Your task to perform on an android device: Go to wifi settings Image 0: 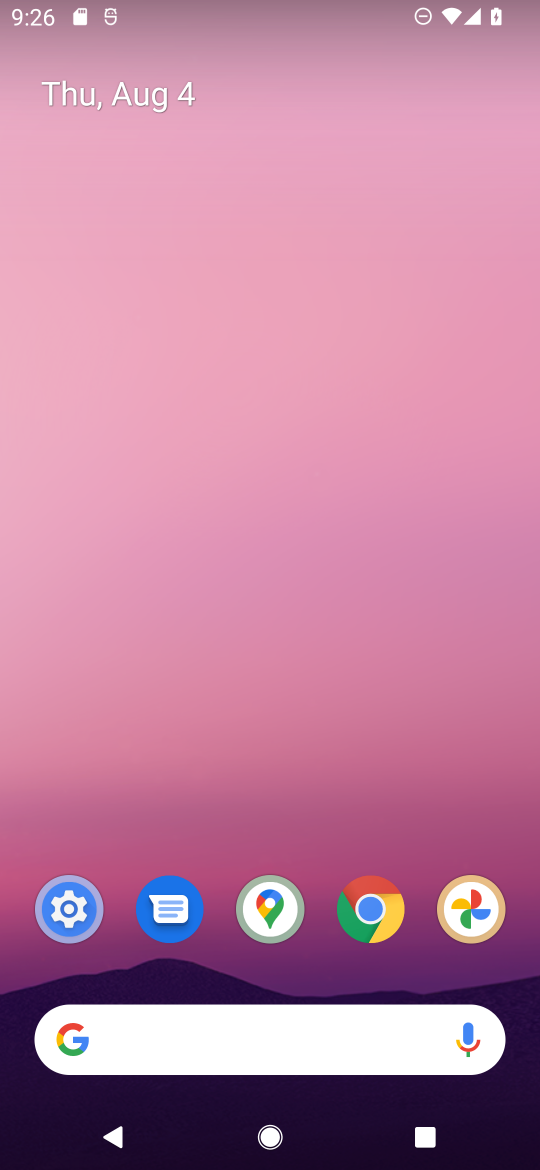
Step 0: drag from (344, 805) to (425, 222)
Your task to perform on an android device: Go to wifi settings Image 1: 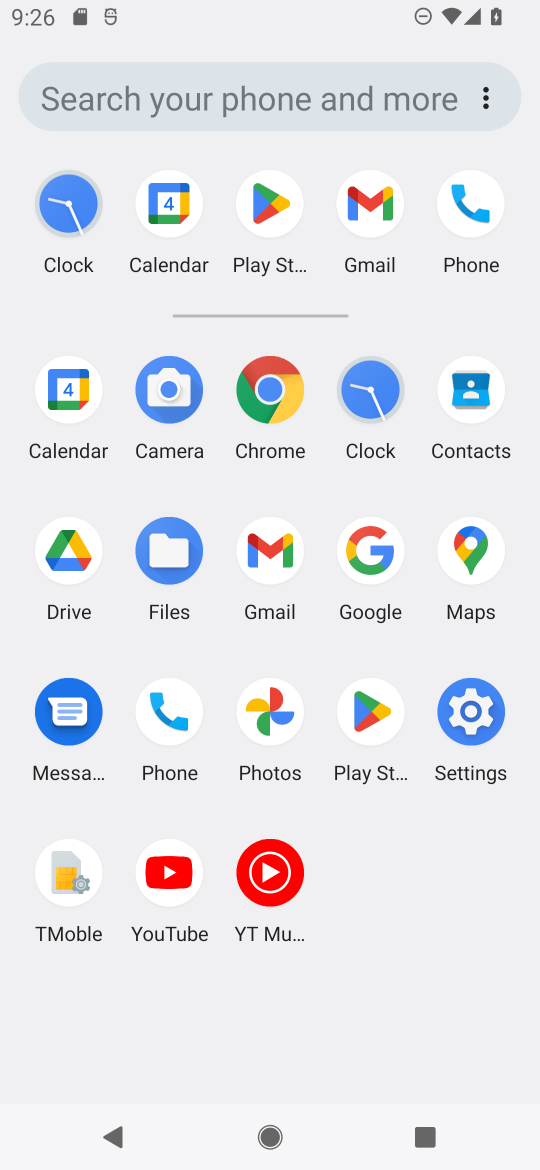
Step 1: click (487, 696)
Your task to perform on an android device: Go to wifi settings Image 2: 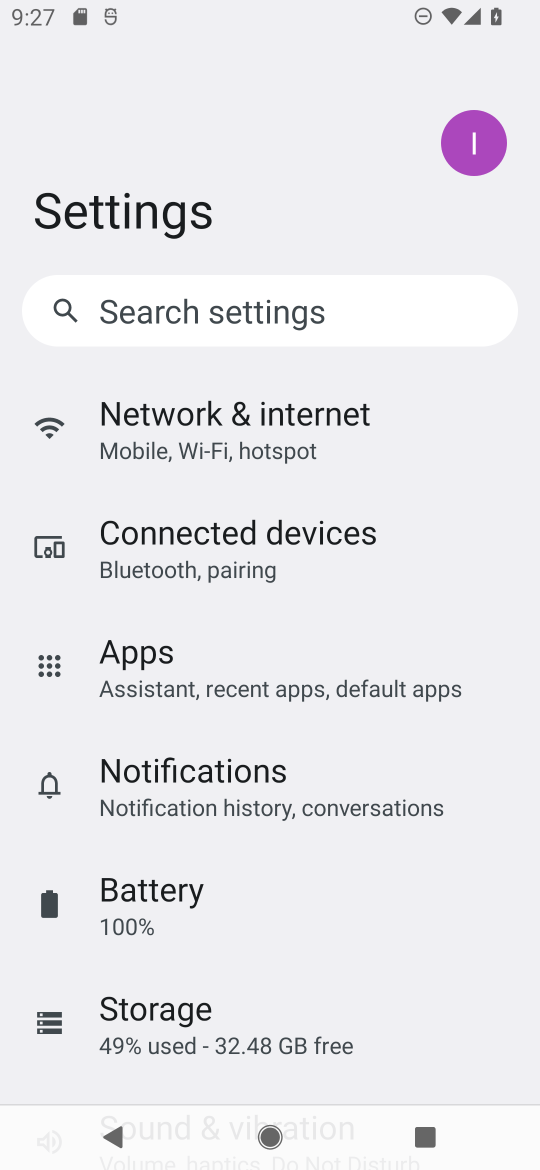
Step 2: click (302, 427)
Your task to perform on an android device: Go to wifi settings Image 3: 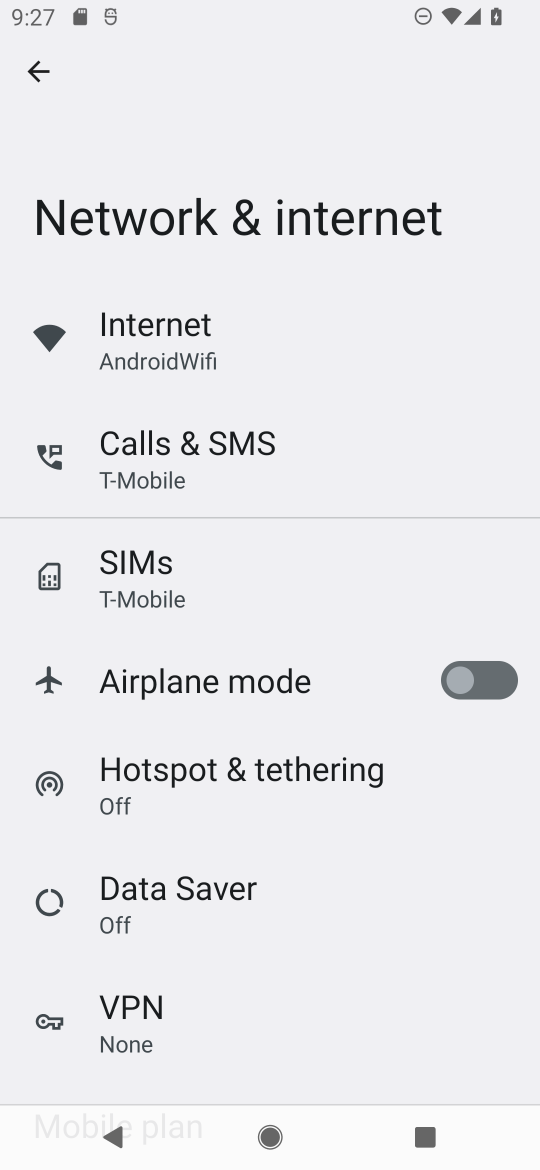
Step 3: click (200, 337)
Your task to perform on an android device: Go to wifi settings Image 4: 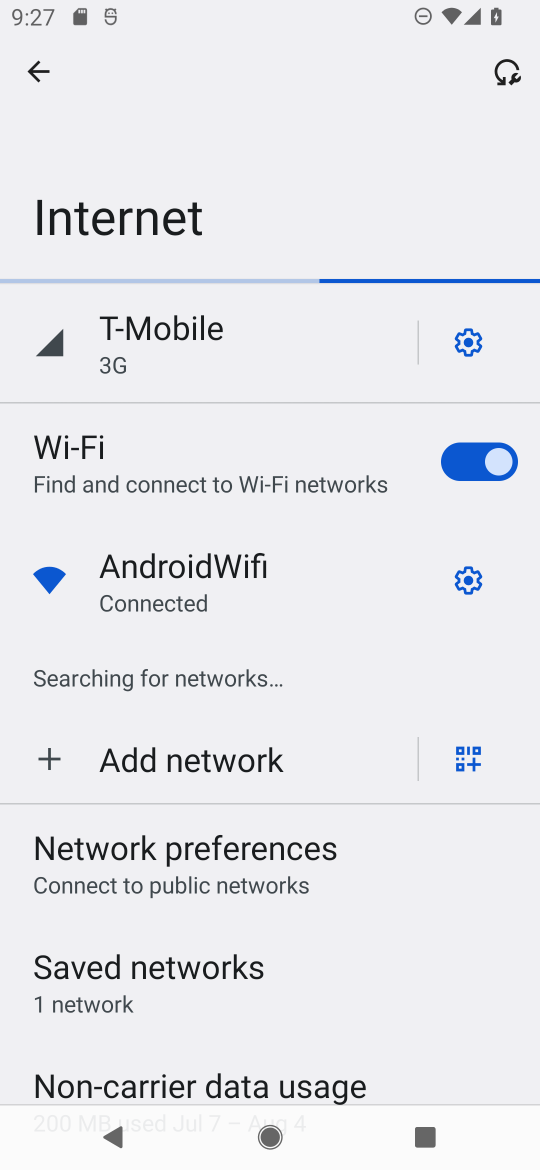
Step 4: task complete